Your task to perform on an android device: change the clock display to analog Image 0: 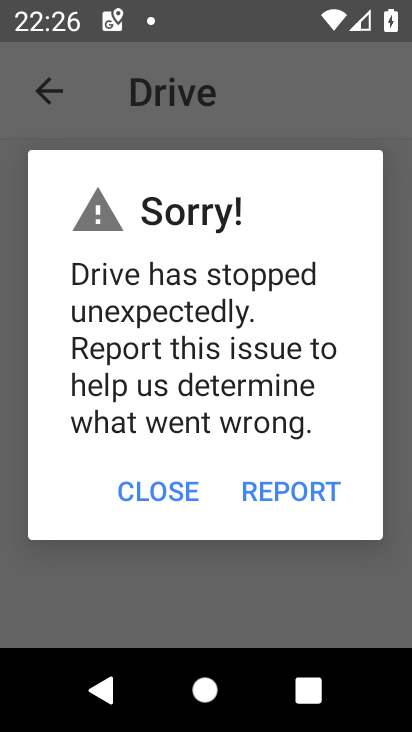
Step 0: press home button
Your task to perform on an android device: change the clock display to analog Image 1: 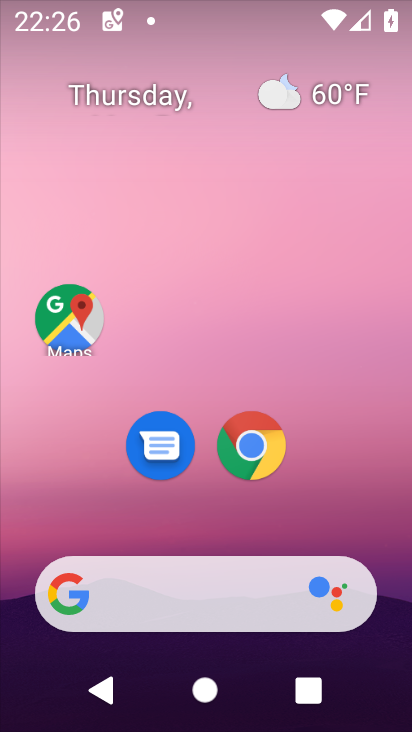
Step 1: drag from (252, 569) to (226, 179)
Your task to perform on an android device: change the clock display to analog Image 2: 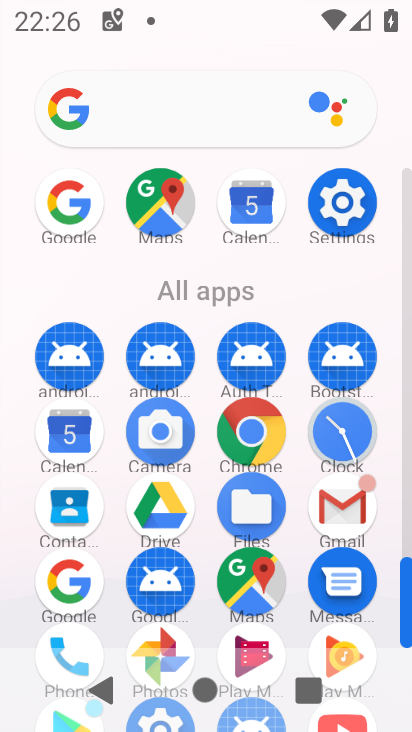
Step 2: click (346, 433)
Your task to perform on an android device: change the clock display to analog Image 3: 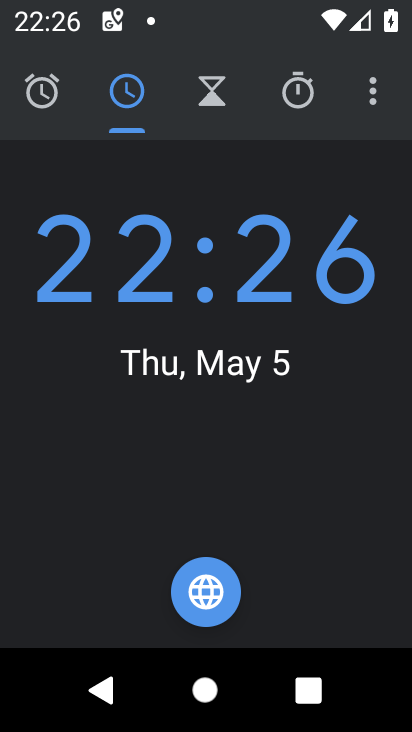
Step 3: click (368, 118)
Your task to perform on an android device: change the clock display to analog Image 4: 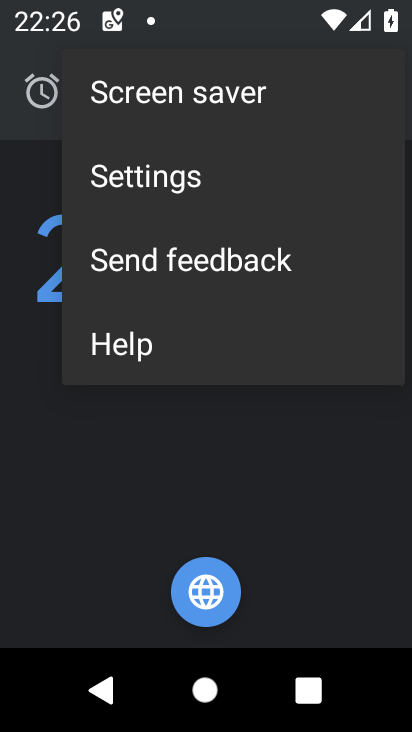
Step 4: click (225, 155)
Your task to perform on an android device: change the clock display to analog Image 5: 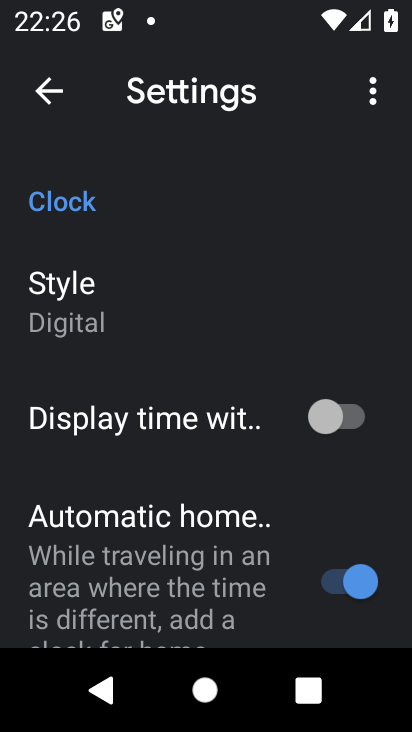
Step 5: click (112, 305)
Your task to perform on an android device: change the clock display to analog Image 6: 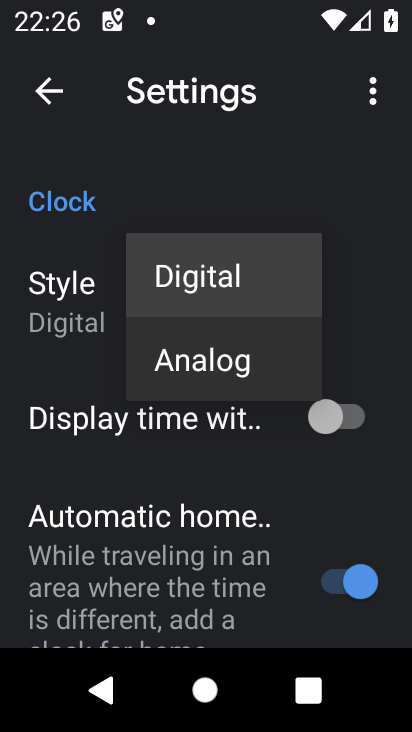
Step 6: click (185, 349)
Your task to perform on an android device: change the clock display to analog Image 7: 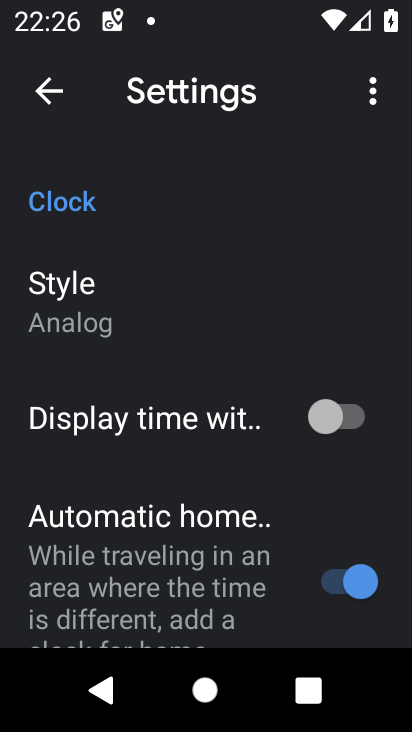
Step 7: click (185, 349)
Your task to perform on an android device: change the clock display to analog Image 8: 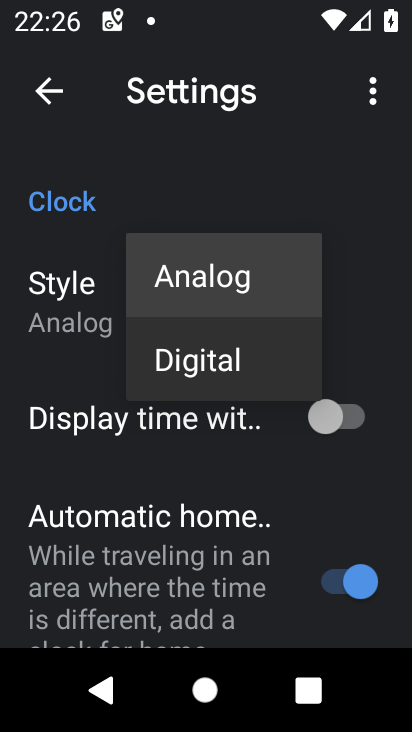
Step 8: click (230, 272)
Your task to perform on an android device: change the clock display to analog Image 9: 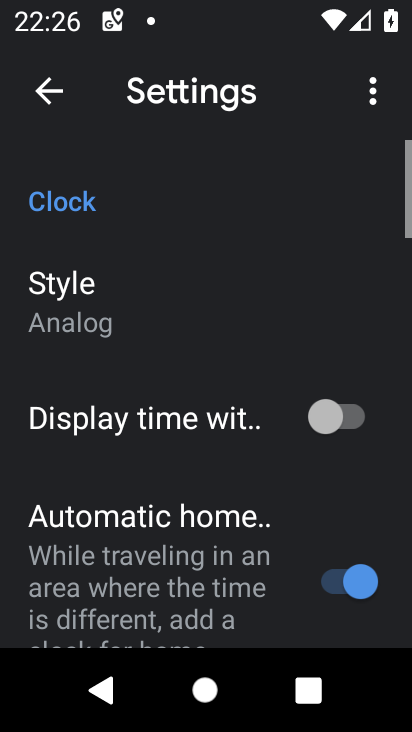
Step 9: task complete